Your task to perform on an android device: See recent photos Image 0: 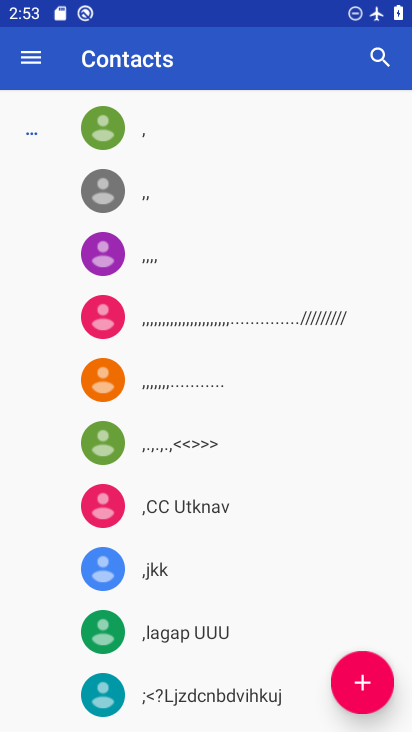
Step 0: press home button
Your task to perform on an android device: See recent photos Image 1: 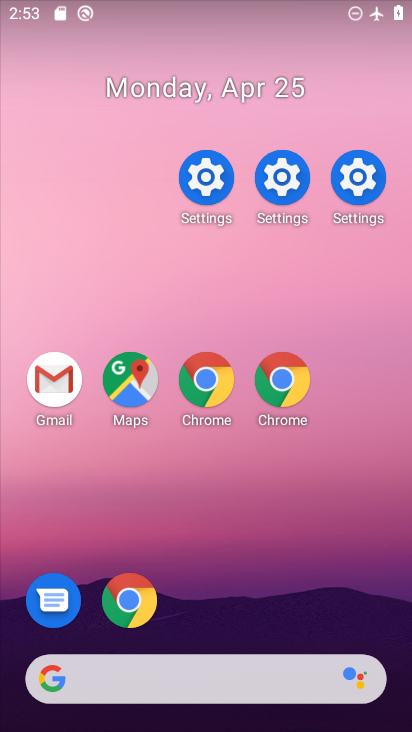
Step 1: drag from (286, 705) to (60, 43)
Your task to perform on an android device: See recent photos Image 2: 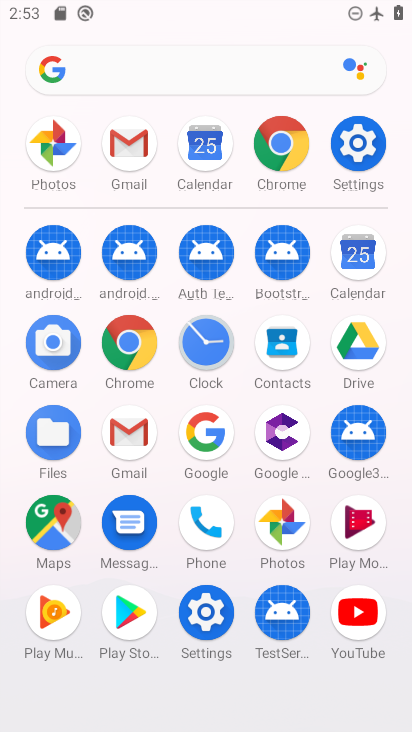
Step 2: click (283, 526)
Your task to perform on an android device: See recent photos Image 3: 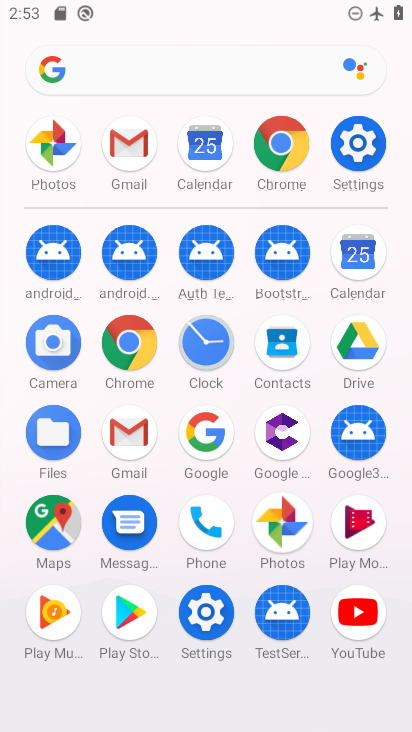
Step 3: click (283, 526)
Your task to perform on an android device: See recent photos Image 4: 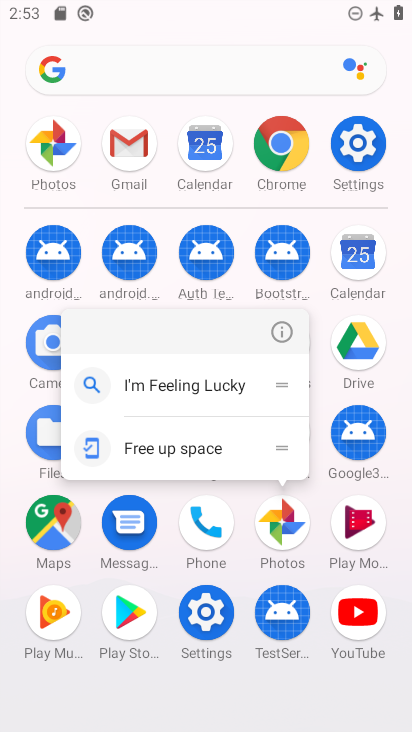
Step 4: click (283, 527)
Your task to perform on an android device: See recent photos Image 5: 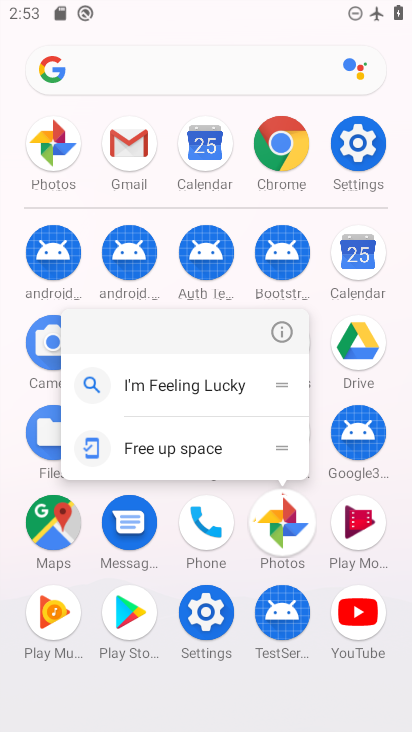
Step 5: click (282, 529)
Your task to perform on an android device: See recent photos Image 6: 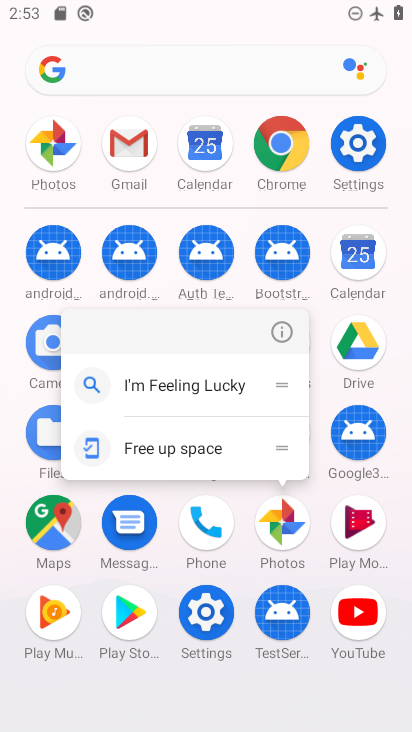
Step 6: click (275, 516)
Your task to perform on an android device: See recent photos Image 7: 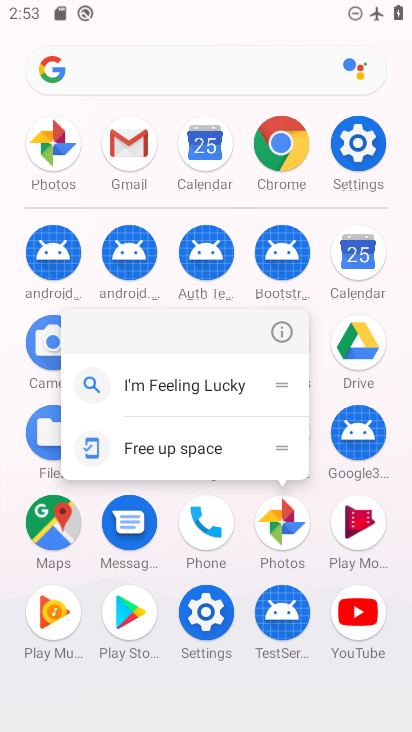
Step 7: click (275, 516)
Your task to perform on an android device: See recent photos Image 8: 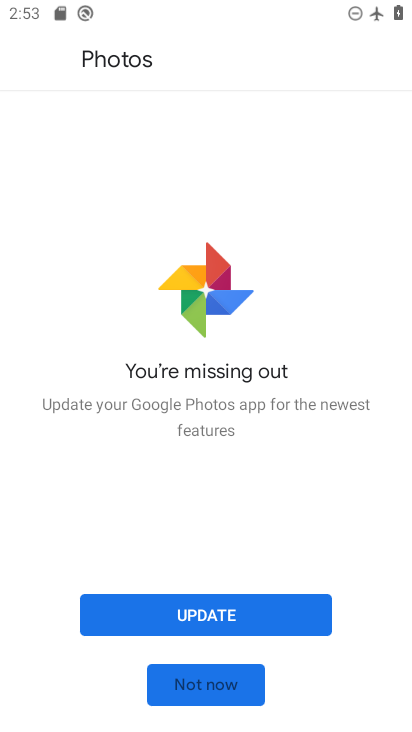
Step 8: click (185, 678)
Your task to perform on an android device: See recent photos Image 9: 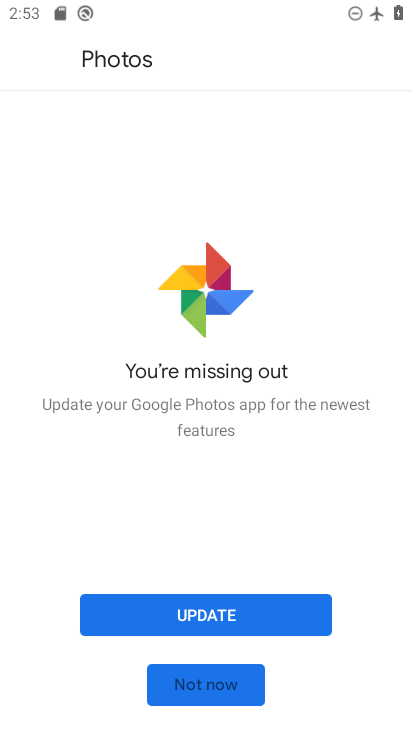
Step 9: click (183, 676)
Your task to perform on an android device: See recent photos Image 10: 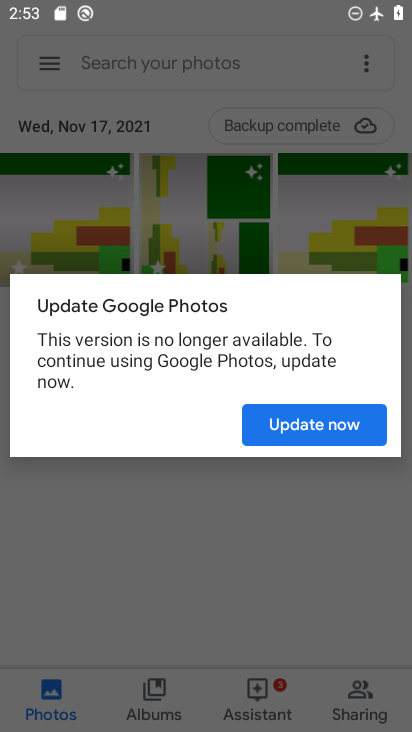
Step 10: click (183, 676)
Your task to perform on an android device: See recent photos Image 11: 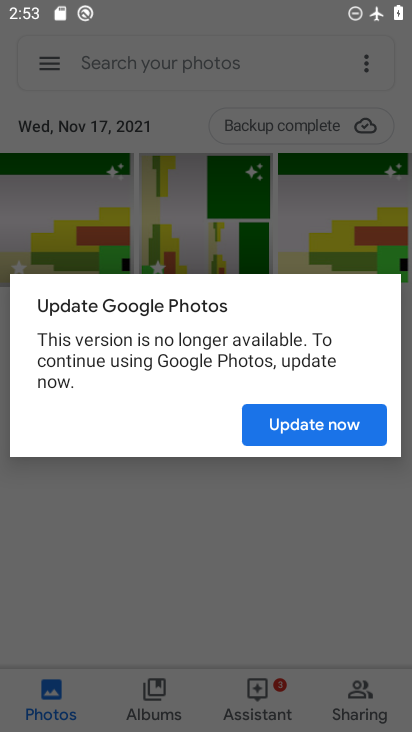
Step 11: click (320, 419)
Your task to perform on an android device: See recent photos Image 12: 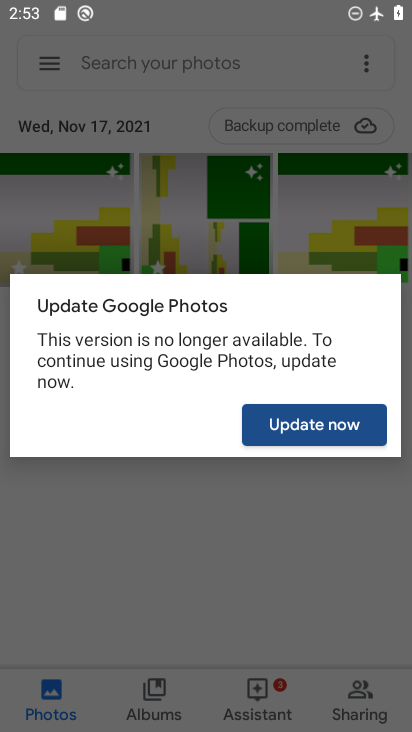
Step 12: click (319, 418)
Your task to perform on an android device: See recent photos Image 13: 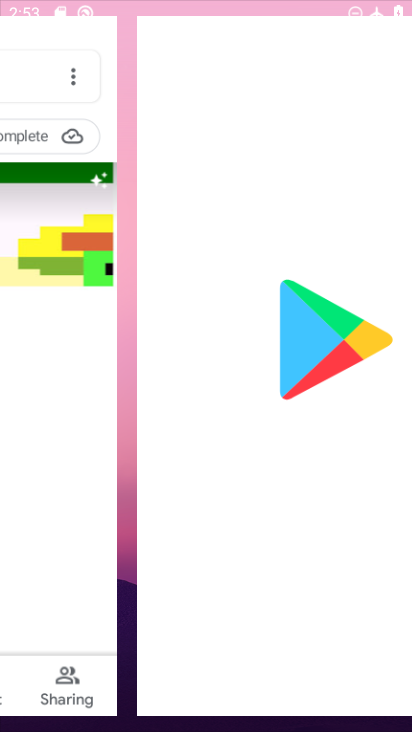
Step 13: click (319, 418)
Your task to perform on an android device: See recent photos Image 14: 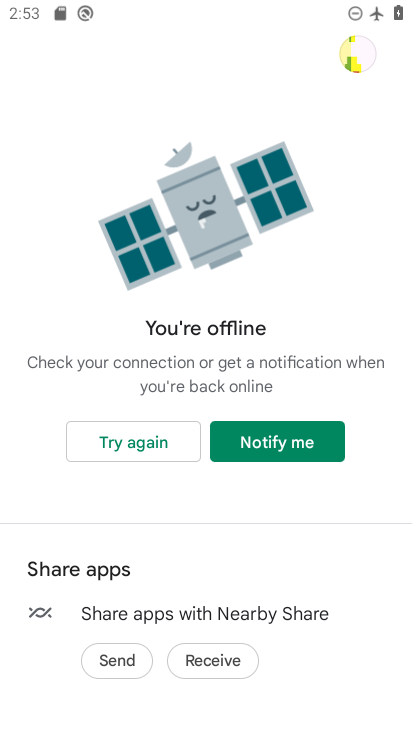
Step 14: task complete